Your task to perform on an android device: Go to settings Image 0: 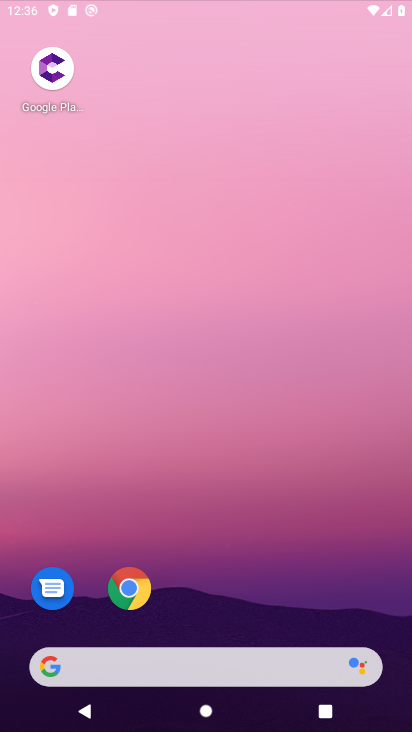
Step 0: click (292, 211)
Your task to perform on an android device: Go to settings Image 1: 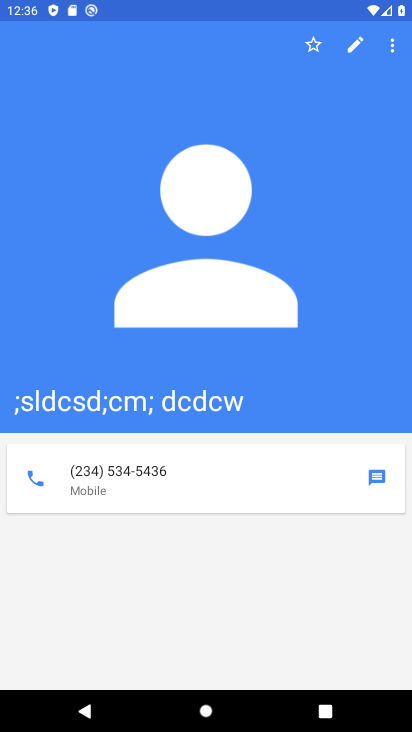
Step 1: press home button
Your task to perform on an android device: Go to settings Image 2: 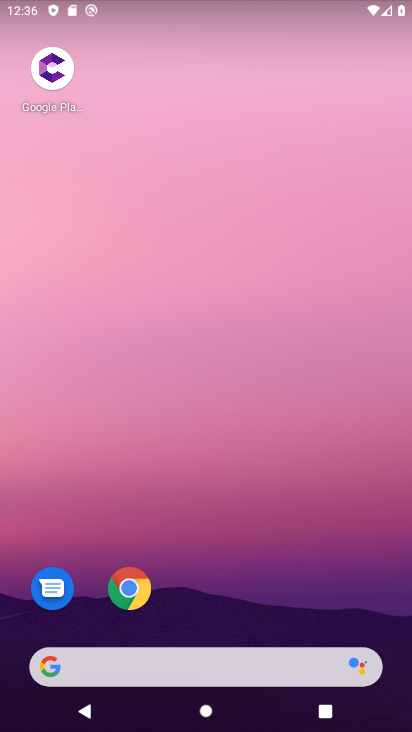
Step 2: drag from (389, 595) to (362, 190)
Your task to perform on an android device: Go to settings Image 3: 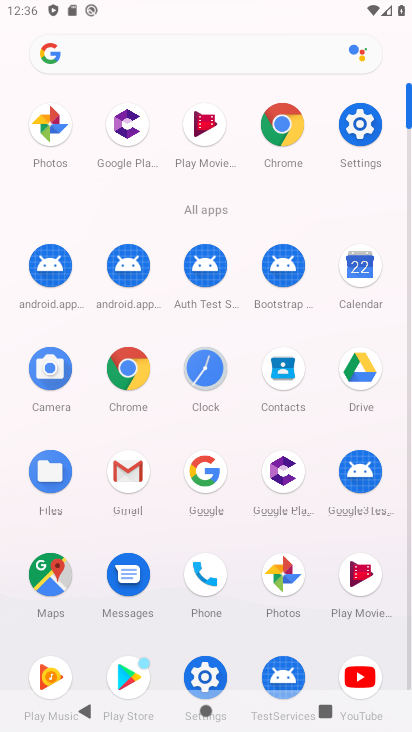
Step 3: click (356, 120)
Your task to perform on an android device: Go to settings Image 4: 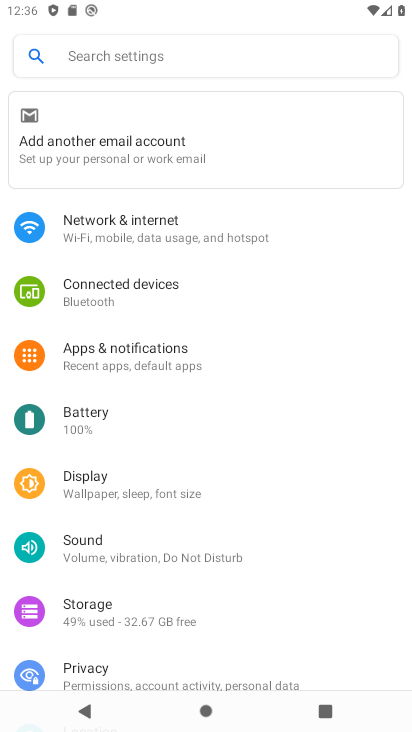
Step 4: task complete